Your task to perform on an android device: toggle show notifications on the lock screen Image 0: 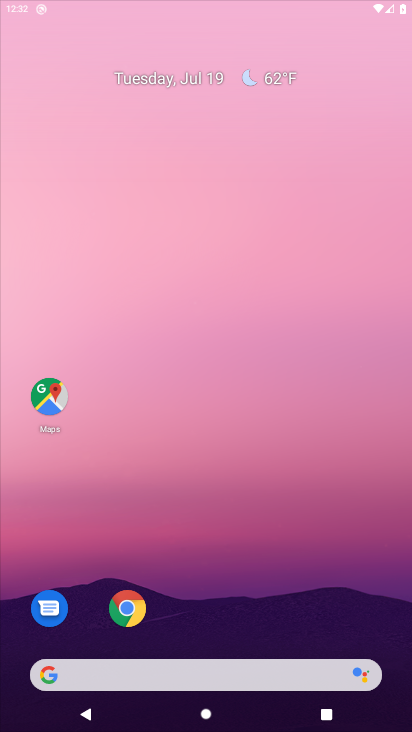
Step 0: press home button
Your task to perform on an android device: toggle show notifications on the lock screen Image 1: 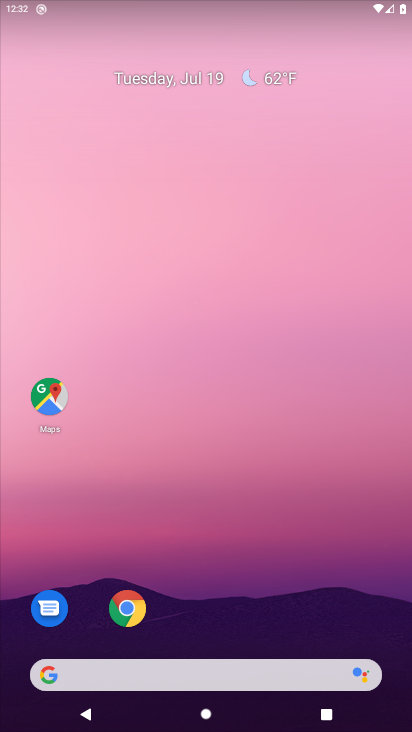
Step 1: drag from (212, 642) to (189, 59)
Your task to perform on an android device: toggle show notifications on the lock screen Image 2: 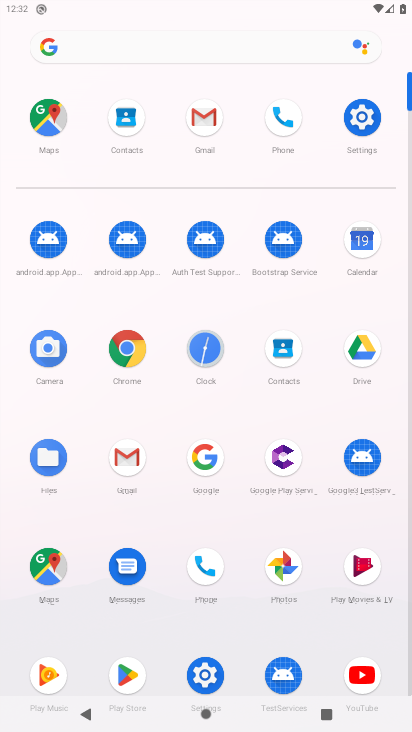
Step 2: click (359, 109)
Your task to perform on an android device: toggle show notifications on the lock screen Image 3: 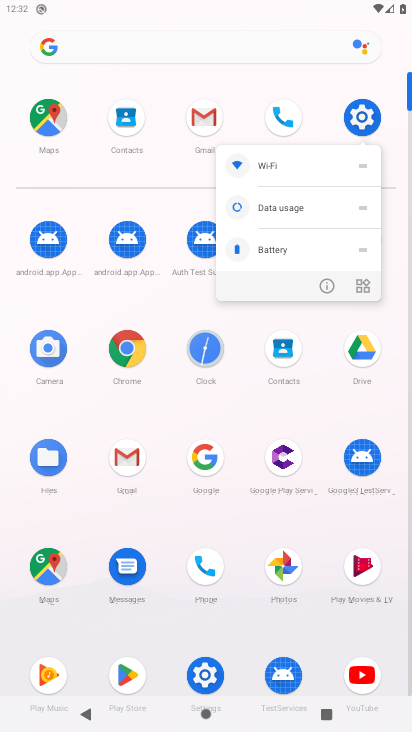
Step 3: click (362, 109)
Your task to perform on an android device: toggle show notifications on the lock screen Image 4: 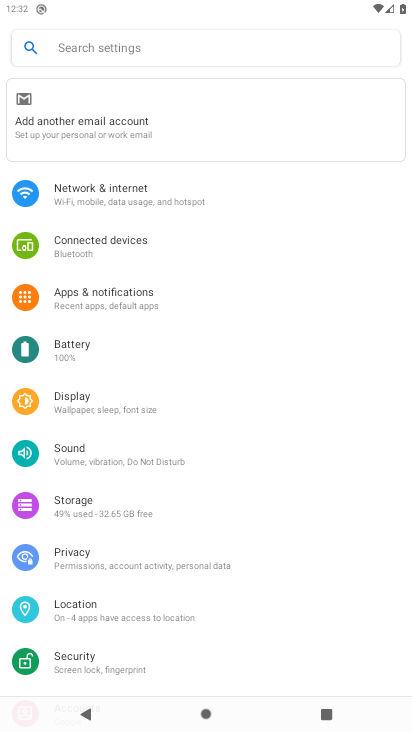
Step 4: click (167, 293)
Your task to perform on an android device: toggle show notifications on the lock screen Image 5: 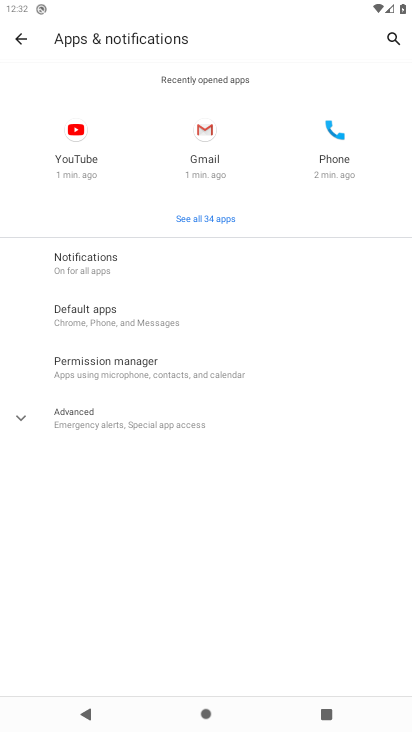
Step 5: click (117, 264)
Your task to perform on an android device: toggle show notifications on the lock screen Image 6: 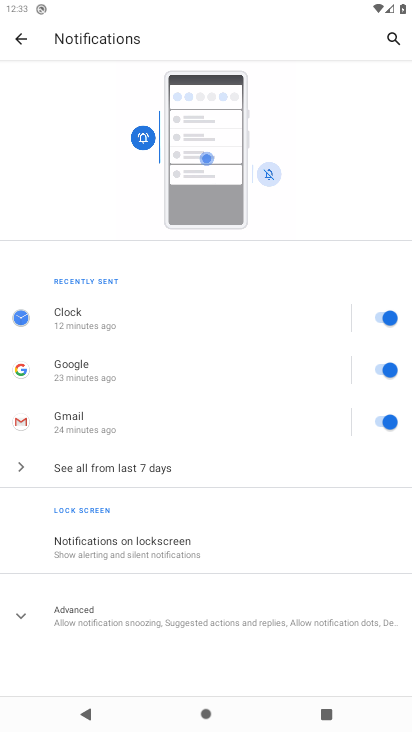
Step 6: click (218, 546)
Your task to perform on an android device: toggle show notifications on the lock screen Image 7: 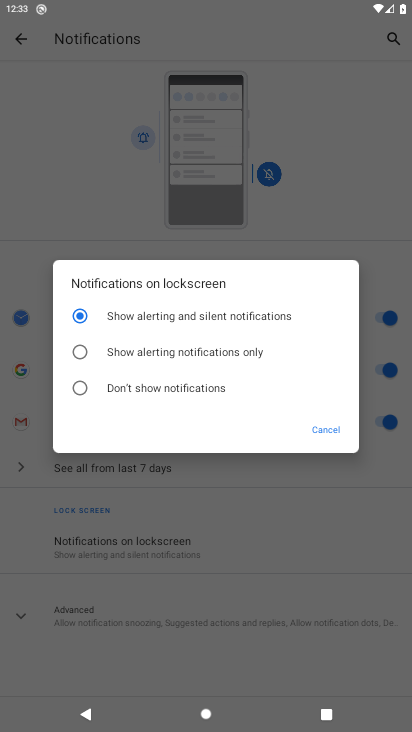
Step 7: click (77, 351)
Your task to perform on an android device: toggle show notifications on the lock screen Image 8: 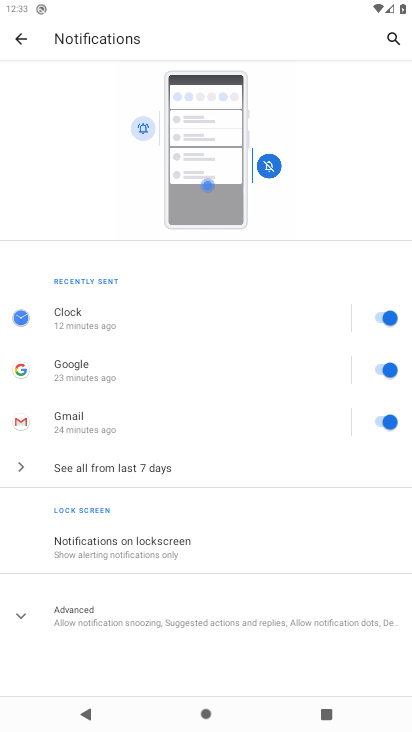
Step 8: task complete